Your task to perform on an android device: change timer sound Image 0: 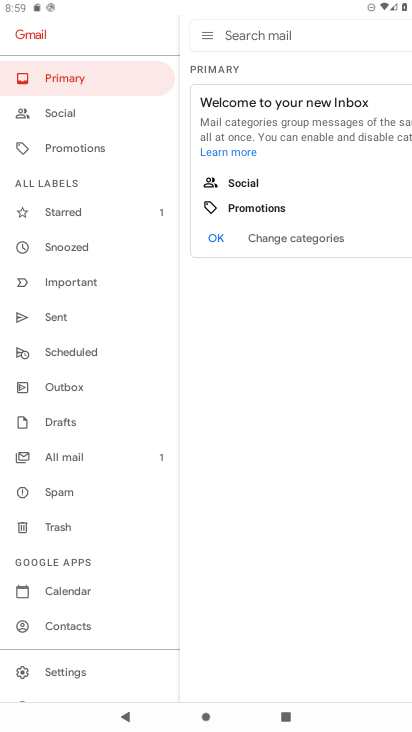
Step 0: press home button
Your task to perform on an android device: change timer sound Image 1: 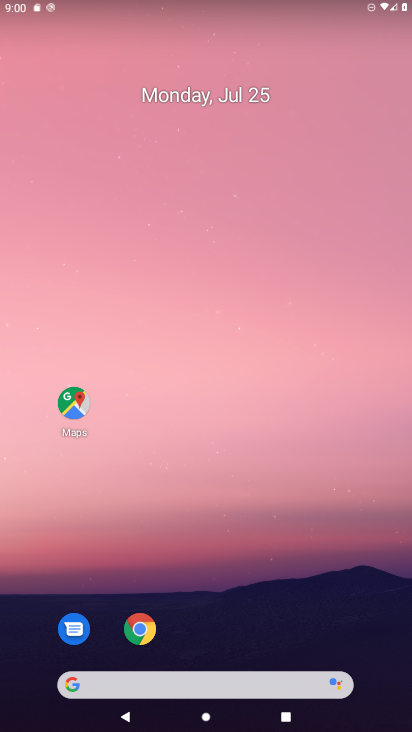
Step 1: drag from (264, 612) to (239, 6)
Your task to perform on an android device: change timer sound Image 2: 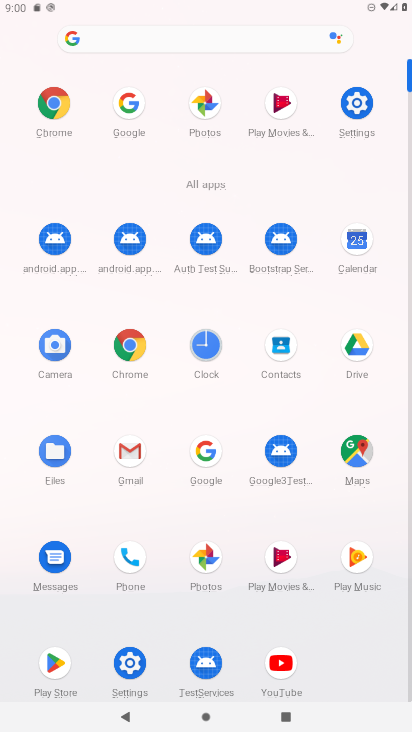
Step 2: click (197, 360)
Your task to perform on an android device: change timer sound Image 3: 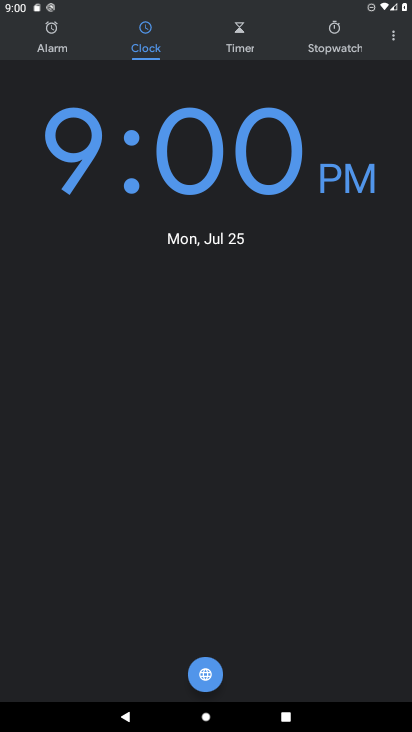
Step 3: click (396, 33)
Your task to perform on an android device: change timer sound Image 4: 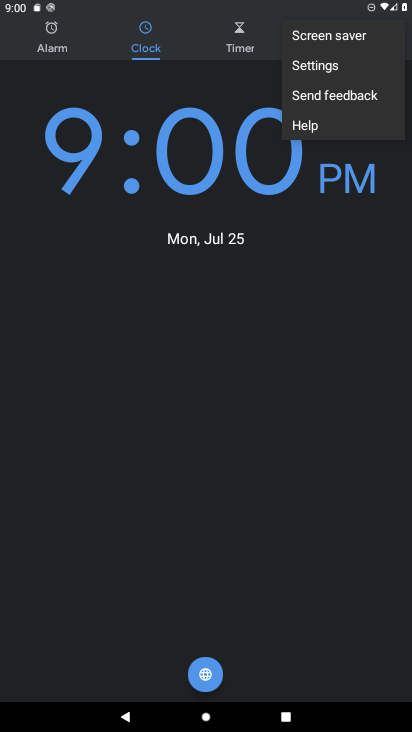
Step 4: click (344, 68)
Your task to perform on an android device: change timer sound Image 5: 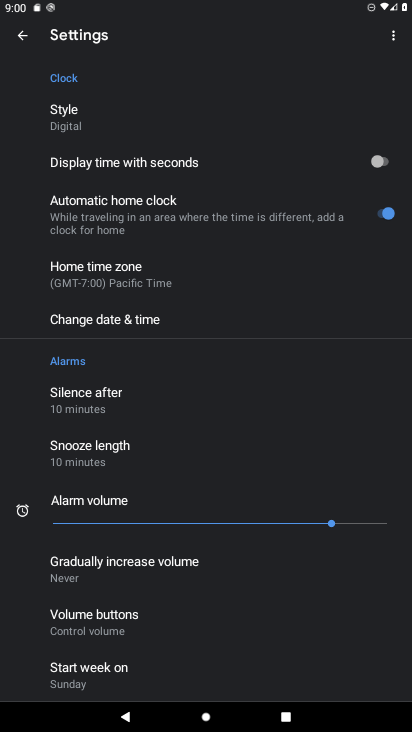
Step 5: drag from (219, 567) to (190, 259)
Your task to perform on an android device: change timer sound Image 6: 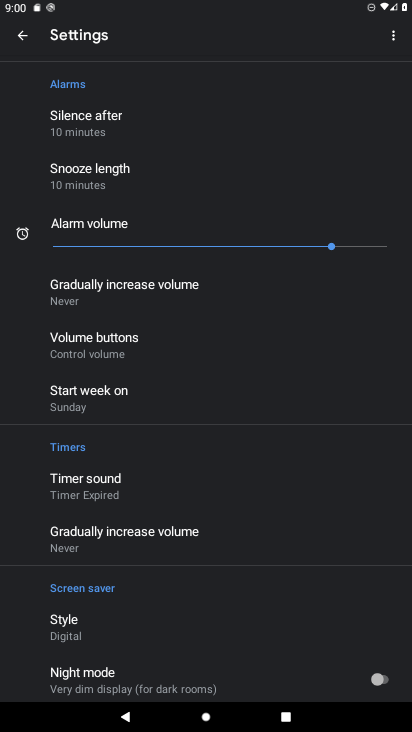
Step 6: click (80, 485)
Your task to perform on an android device: change timer sound Image 7: 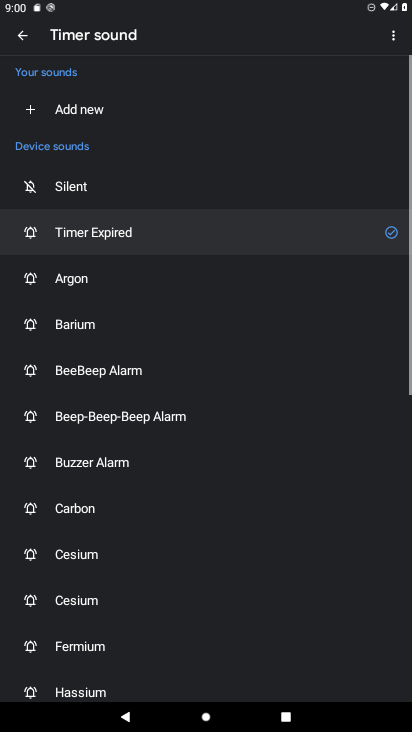
Step 7: click (80, 485)
Your task to perform on an android device: change timer sound Image 8: 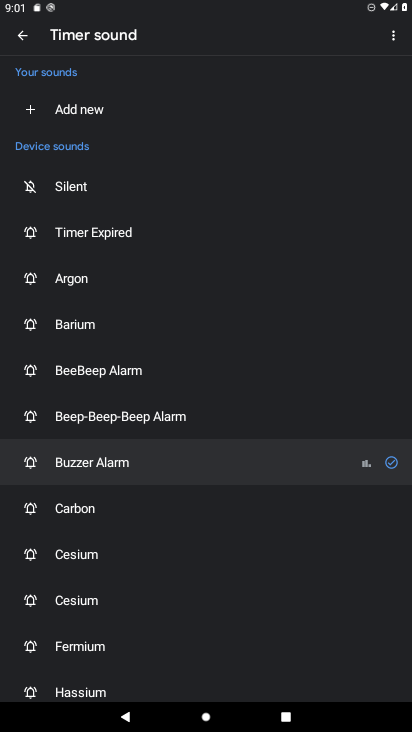
Step 8: task complete